Your task to perform on an android device: toggle pop-ups in chrome Image 0: 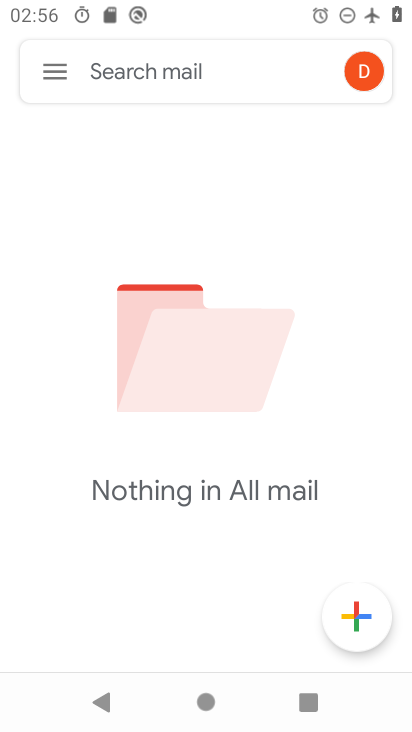
Step 0: press home button
Your task to perform on an android device: toggle pop-ups in chrome Image 1: 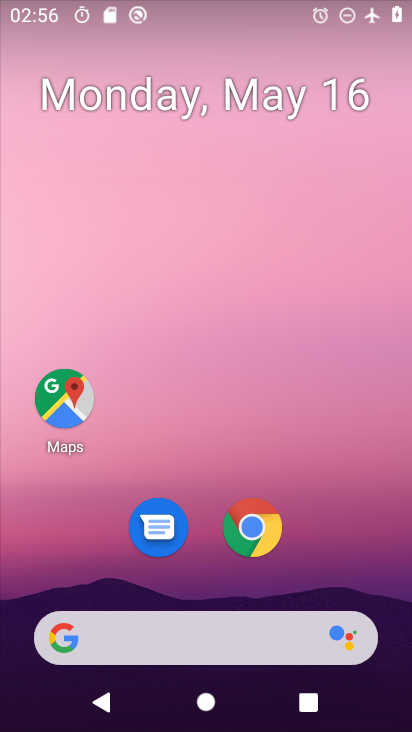
Step 1: click (238, 529)
Your task to perform on an android device: toggle pop-ups in chrome Image 2: 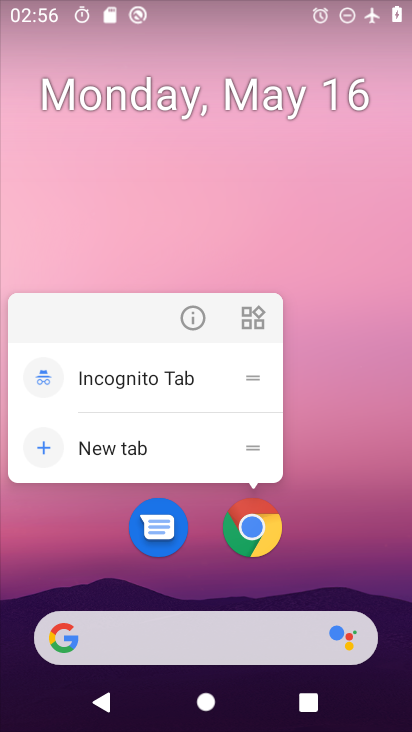
Step 2: click (244, 544)
Your task to perform on an android device: toggle pop-ups in chrome Image 3: 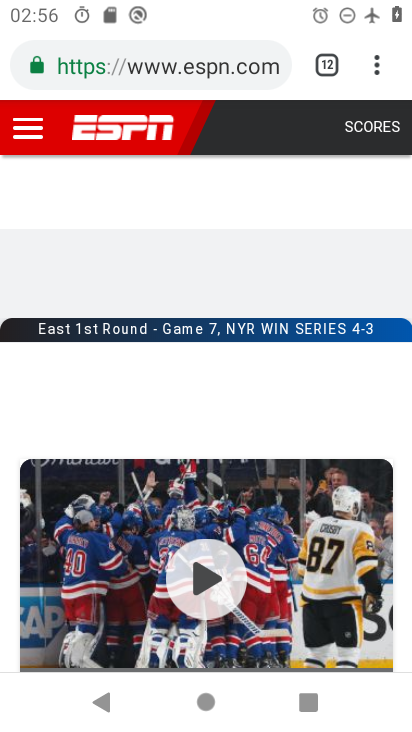
Step 3: drag from (373, 65) to (218, 579)
Your task to perform on an android device: toggle pop-ups in chrome Image 4: 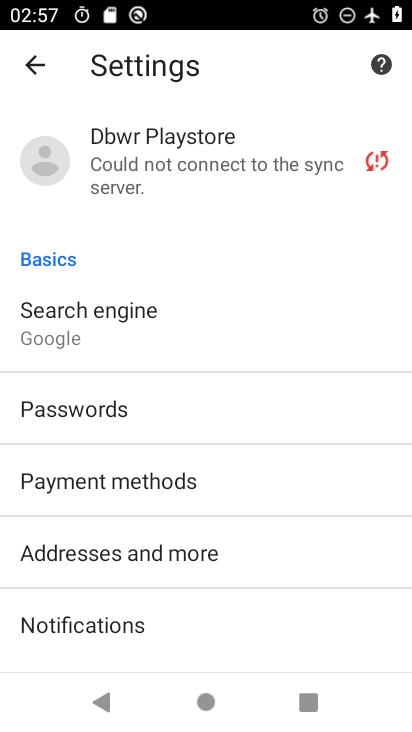
Step 4: drag from (207, 621) to (382, 110)
Your task to perform on an android device: toggle pop-ups in chrome Image 5: 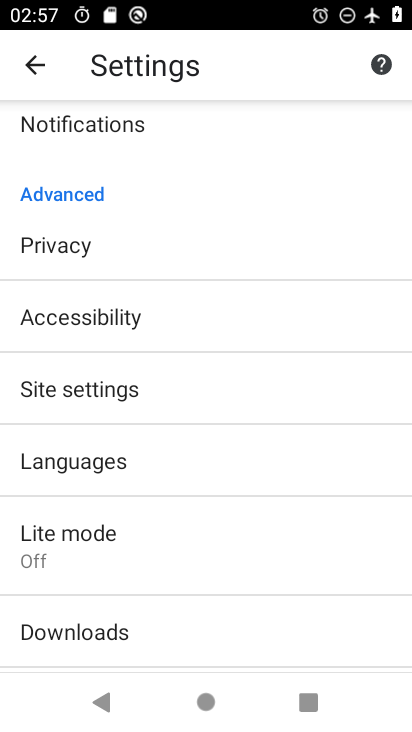
Step 5: click (93, 393)
Your task to perform on an android device: toggle pop-ups in chrome Image 6: 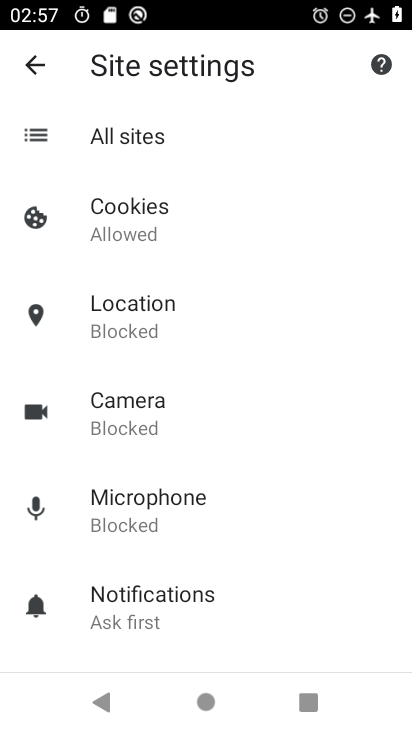
Step 6: drag from (267, 482) to (387, 129)
Your task to perform on an android device: toggle pop-ups in chrome Image 7: 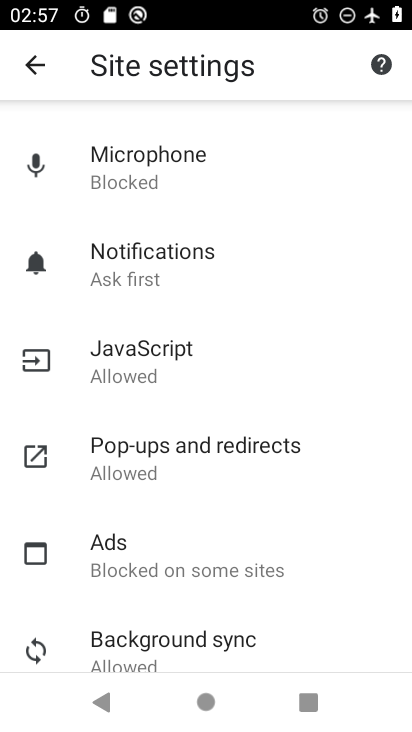
Step 7: click (218, 443)
Your task to perform on an android device: toggle pop-ups in chrome Image 8: 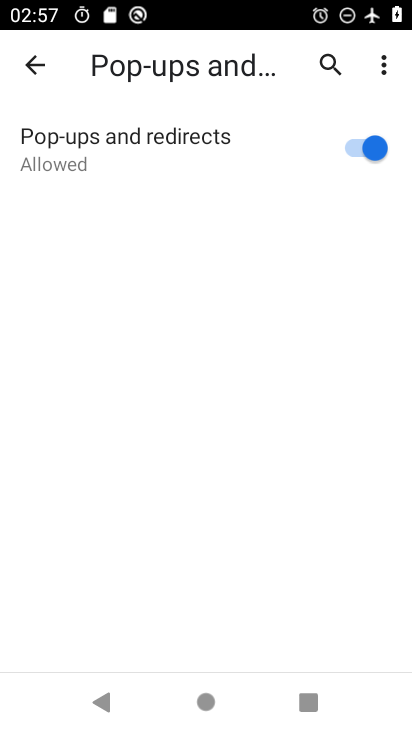
Step 8: click (355, 147)
Your task to perform on an android device: toggle pop-ups in chrome Image 9: 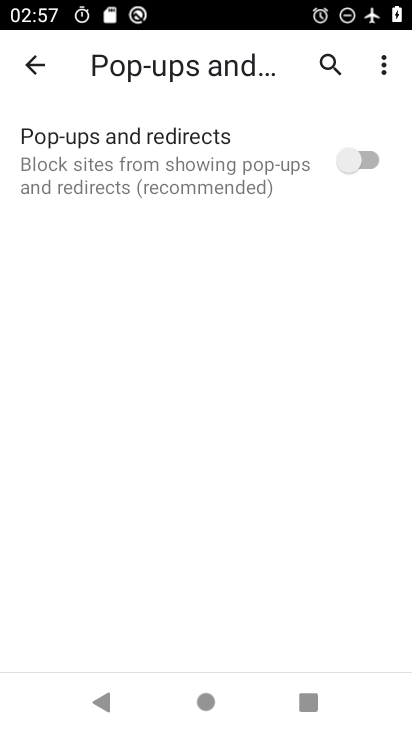
Step 9: task complete